Your task to perform on an android device: open app "Google Pay: Save, Pay, Manage" Image 0: 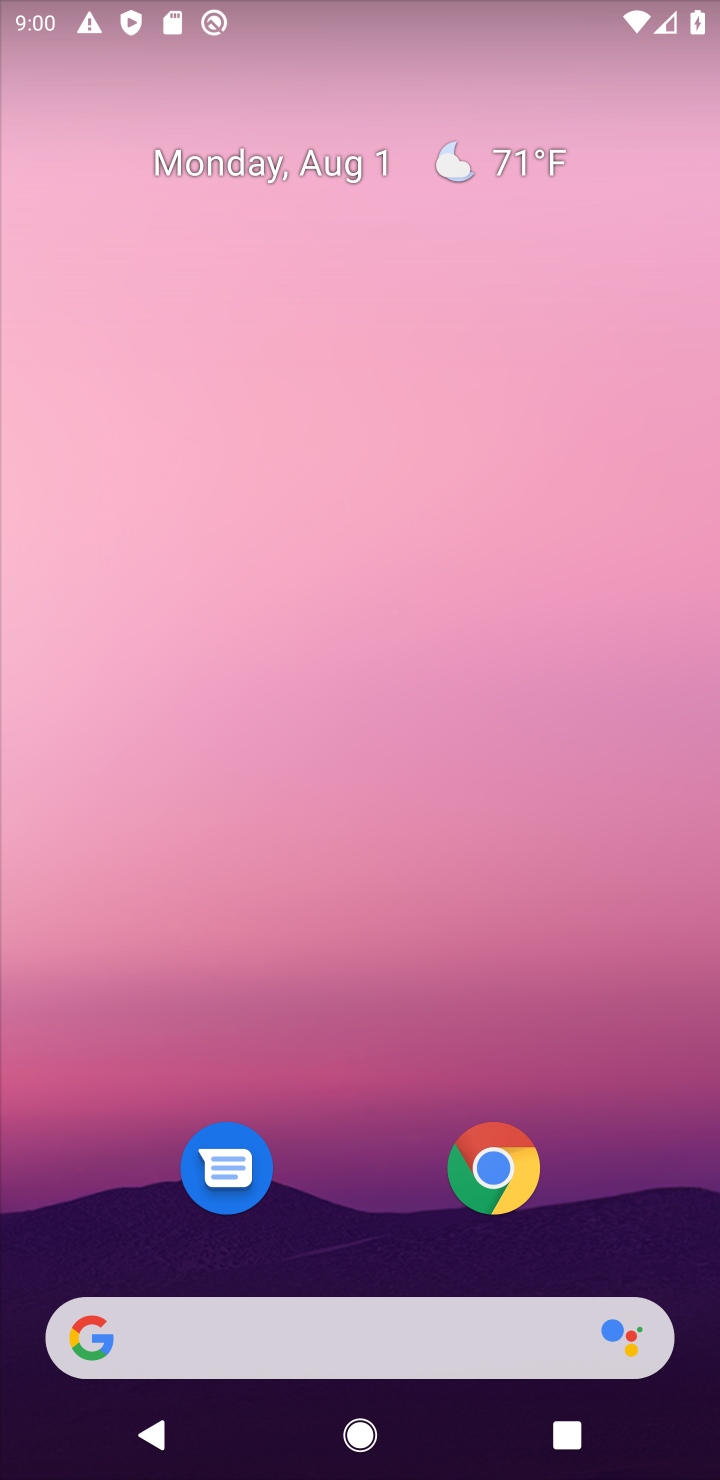
Step 0: drag from (401, 1243) to (523, 1195)
Your task to perform on an android device: open app "Google Pay: Save, Pay, Manage" Image 1: 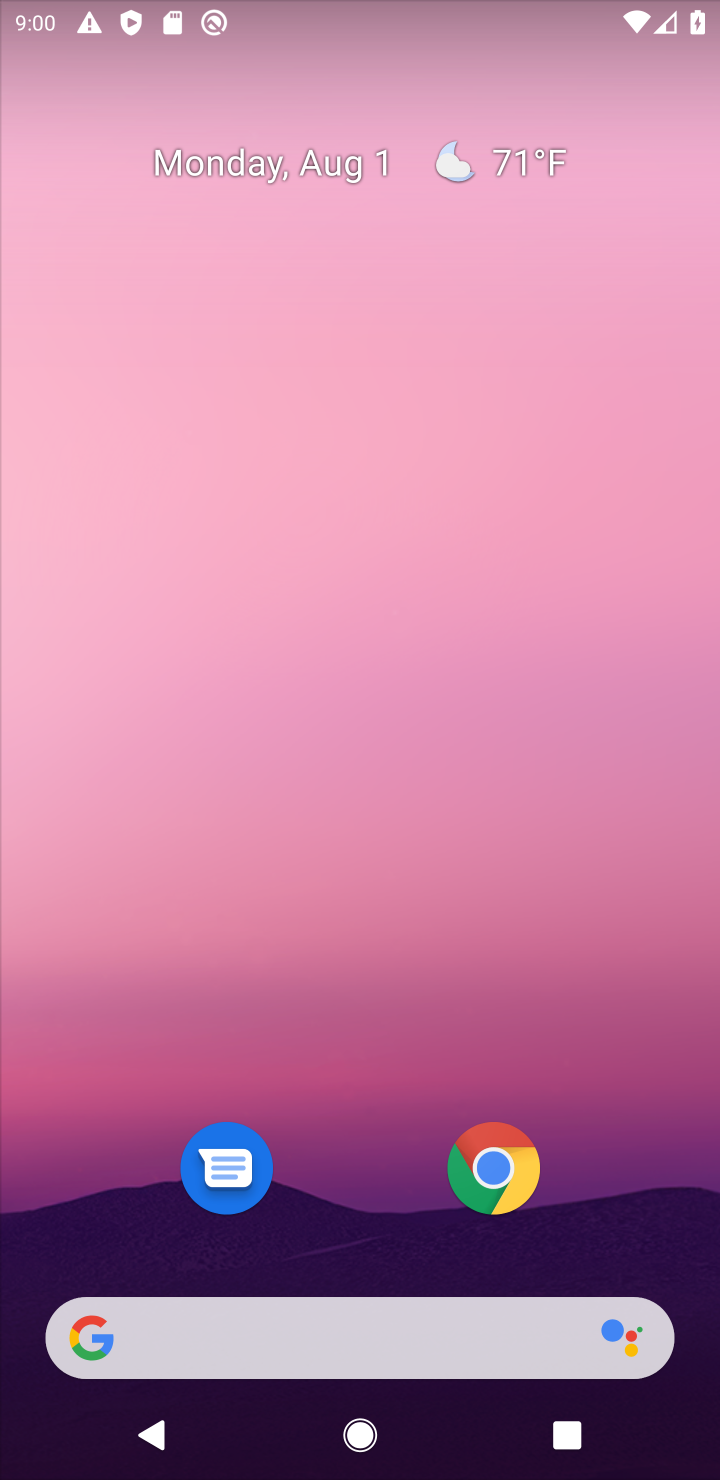
Step 1: drag from (460, 1234) to (633, 73)
Your task to perform on an android device: open app "Google Pay: Save, Pay, Manage" Image 2: 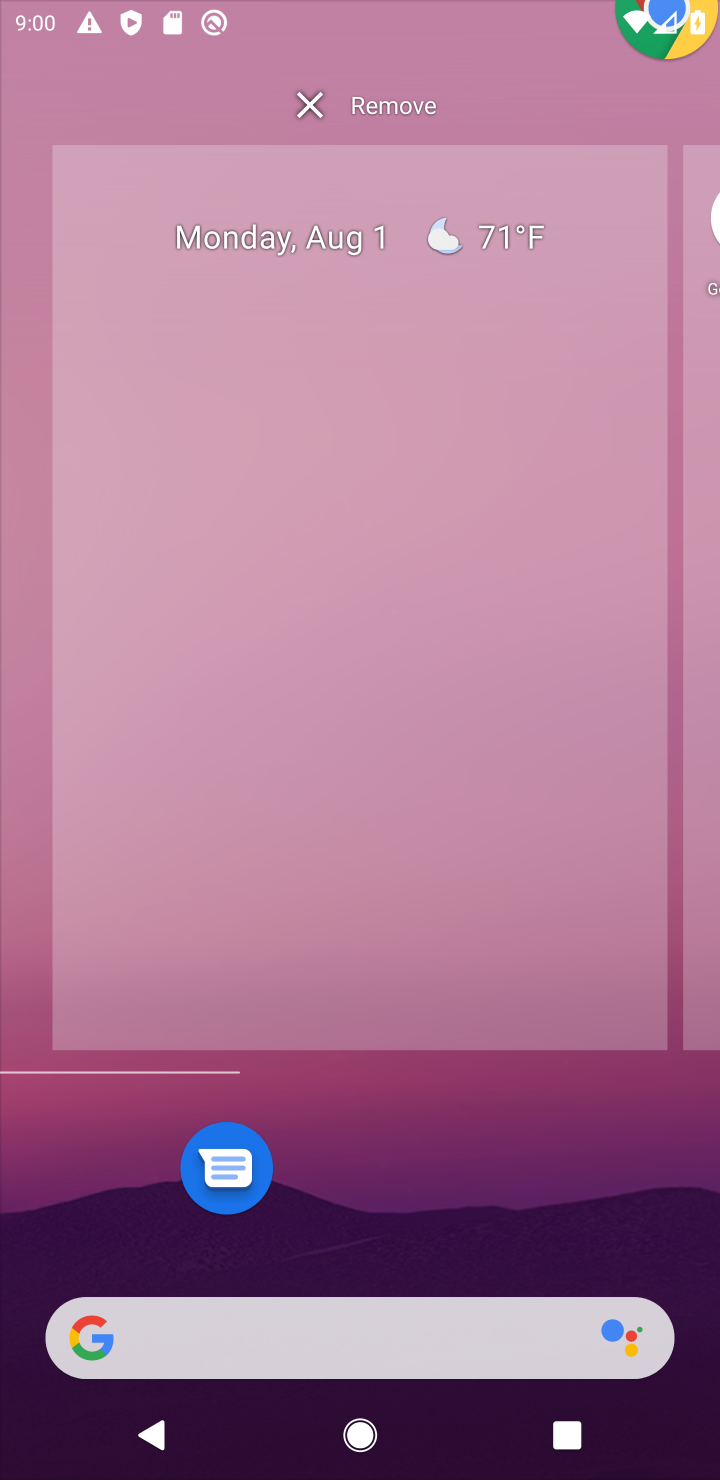
Step 2: click (329, 674)
Your task to perform on an android device: open app "Google Pay: Save, Pay, Manage" Image 3: 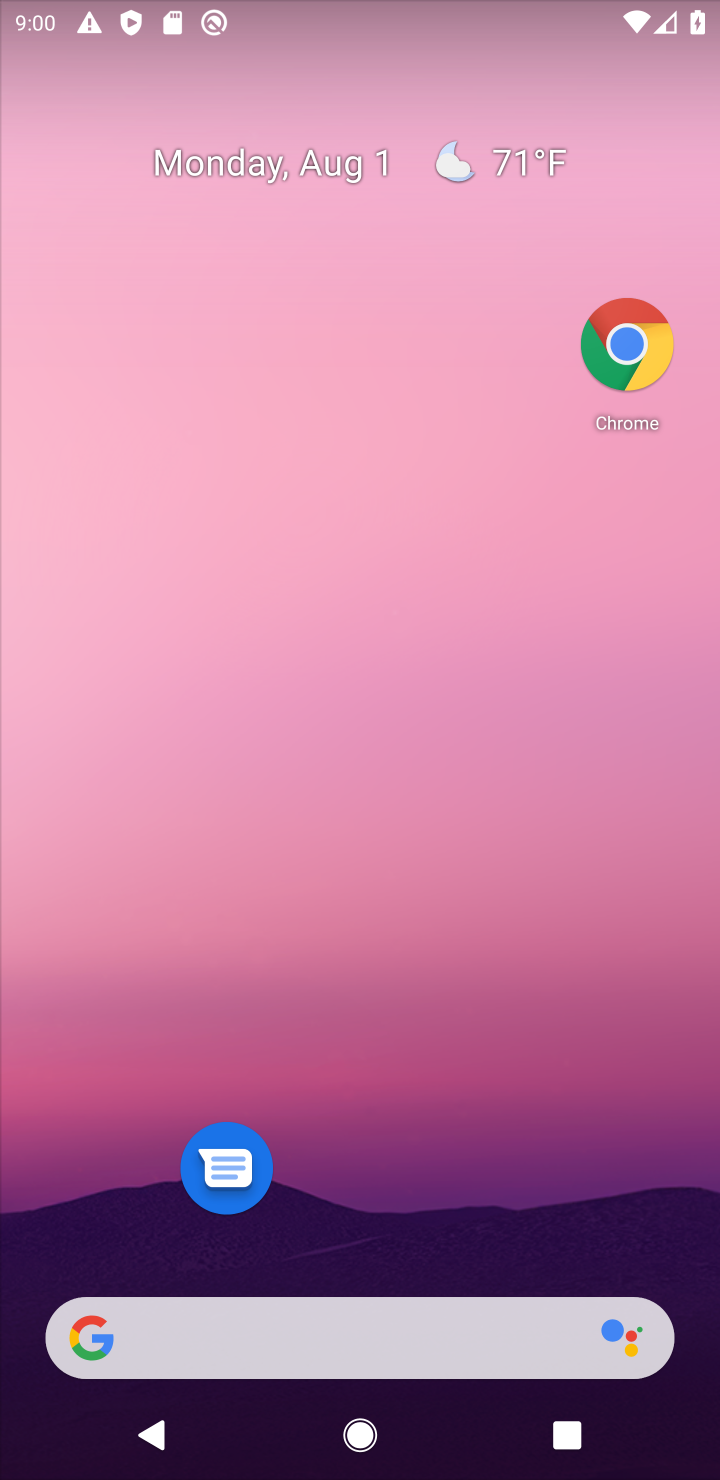
Step 3: drag from (420, 1236) to (566, 600)
Your task to perform on an android device: open app "Google Pay: Save, Pay, Manage" Image 4: 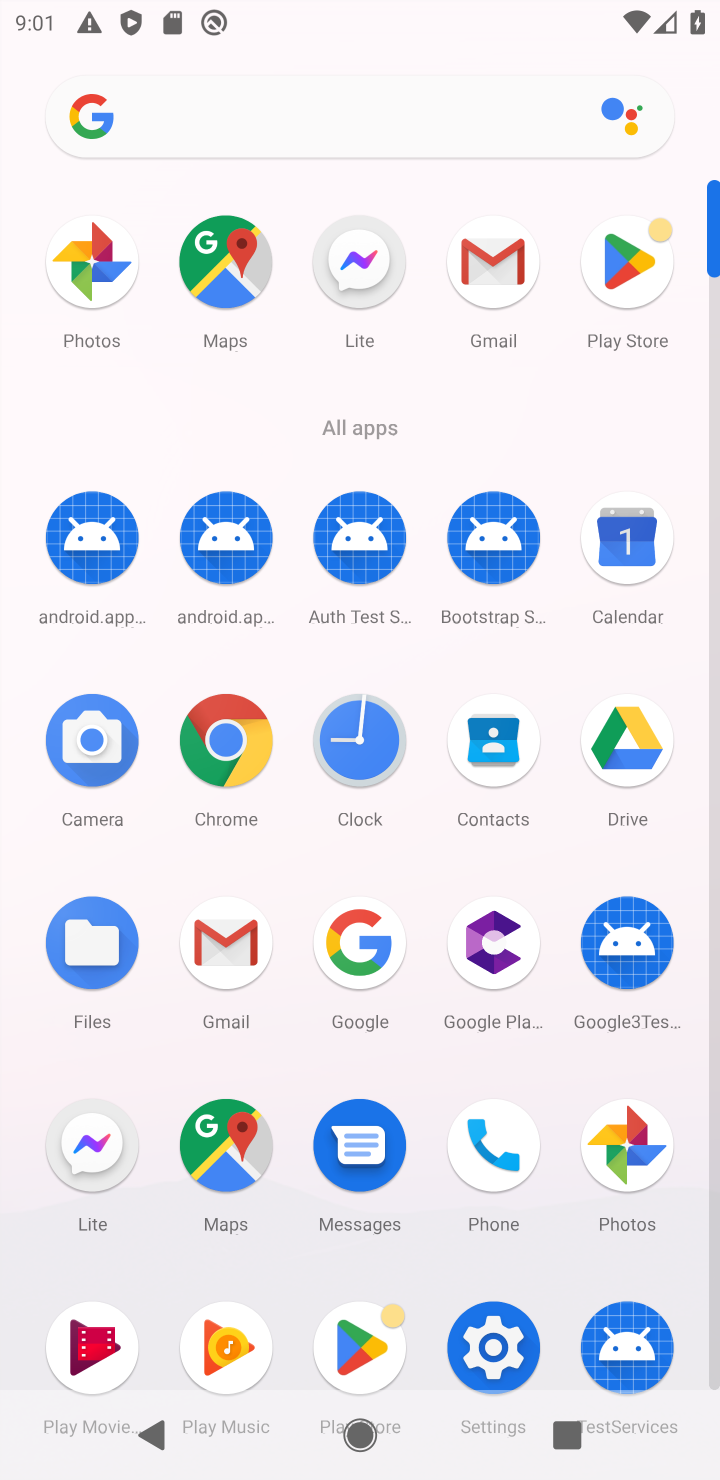
Step 4: click (382, 1346)
Your task to perform on an android device: open app "Google Pay: Save, Pay, Manage" Image 5: 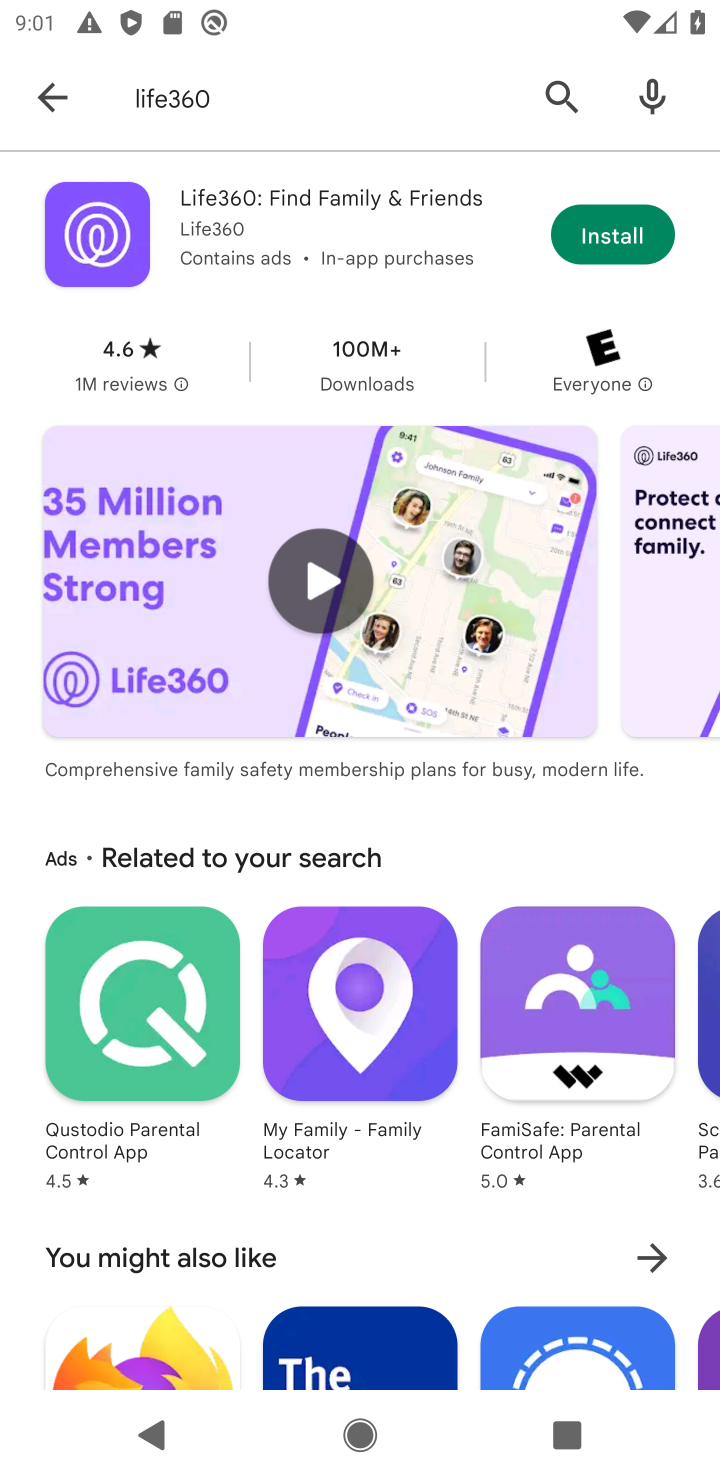
Step 5: click (34, 94)
Your task to perform on an android device: open app "Google Pay: Save, Pay, Manage" Image 6: 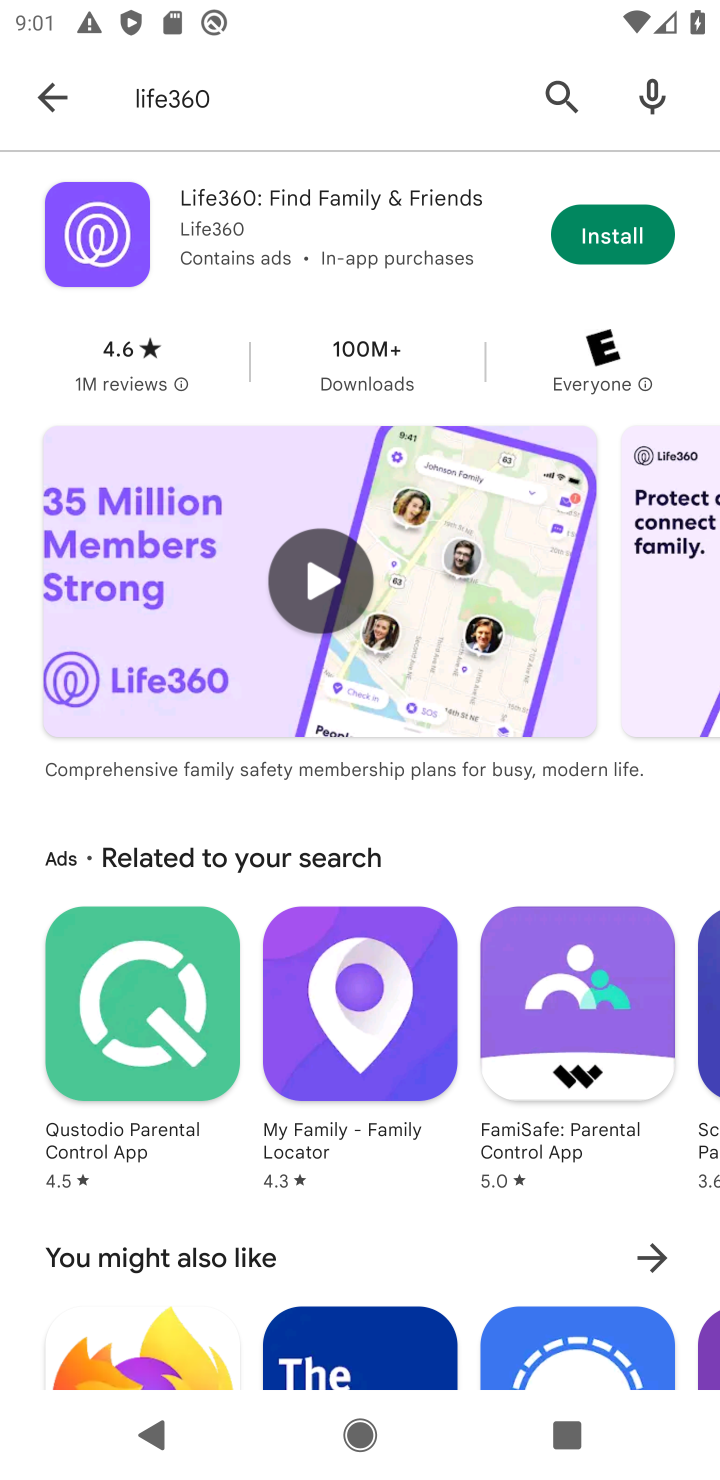
Step 6: click (42, 117)
Your task to perform on an android device: open app "Google Pay: Save, Pay, Manage" Image 7: 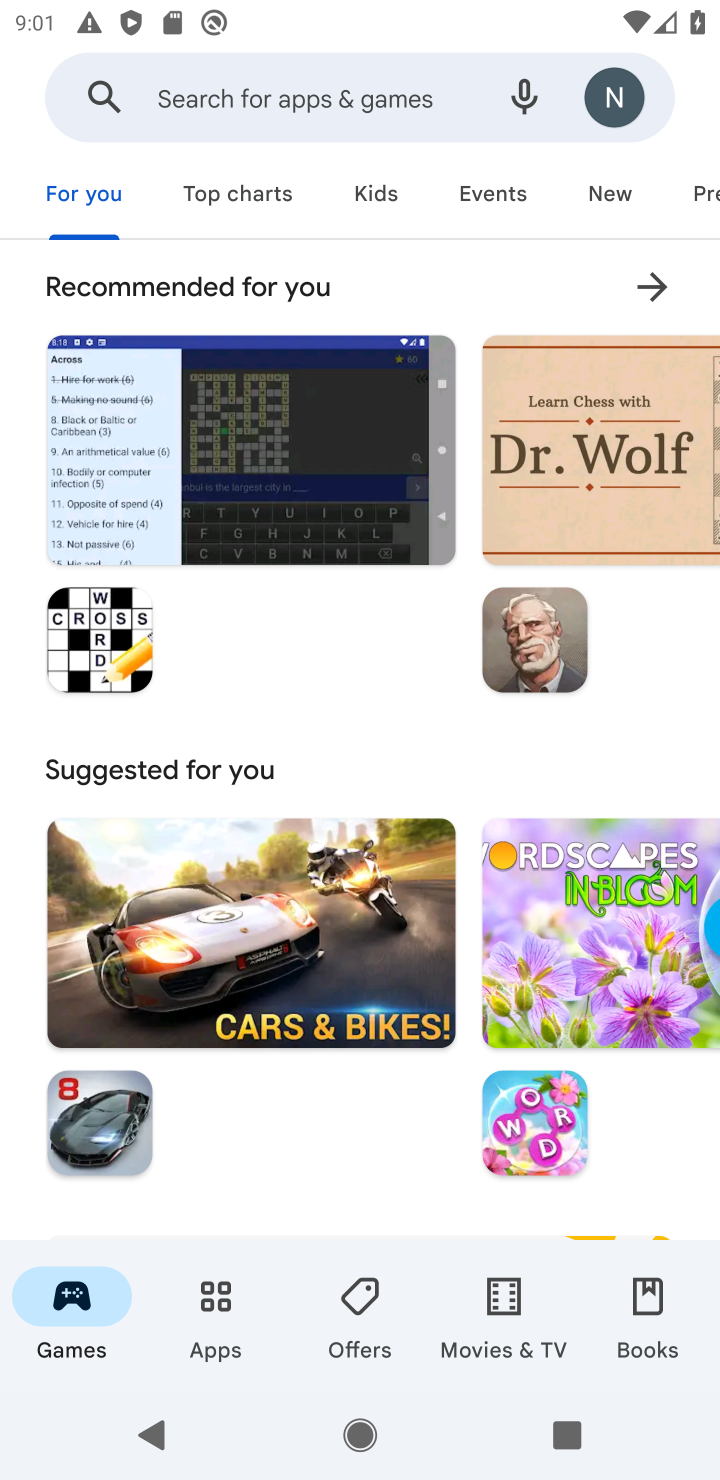
Step 7: click (284, 116)
Your task to perform on an android device: open app "Google Pay: Save, Pay, Manage" Image 8: 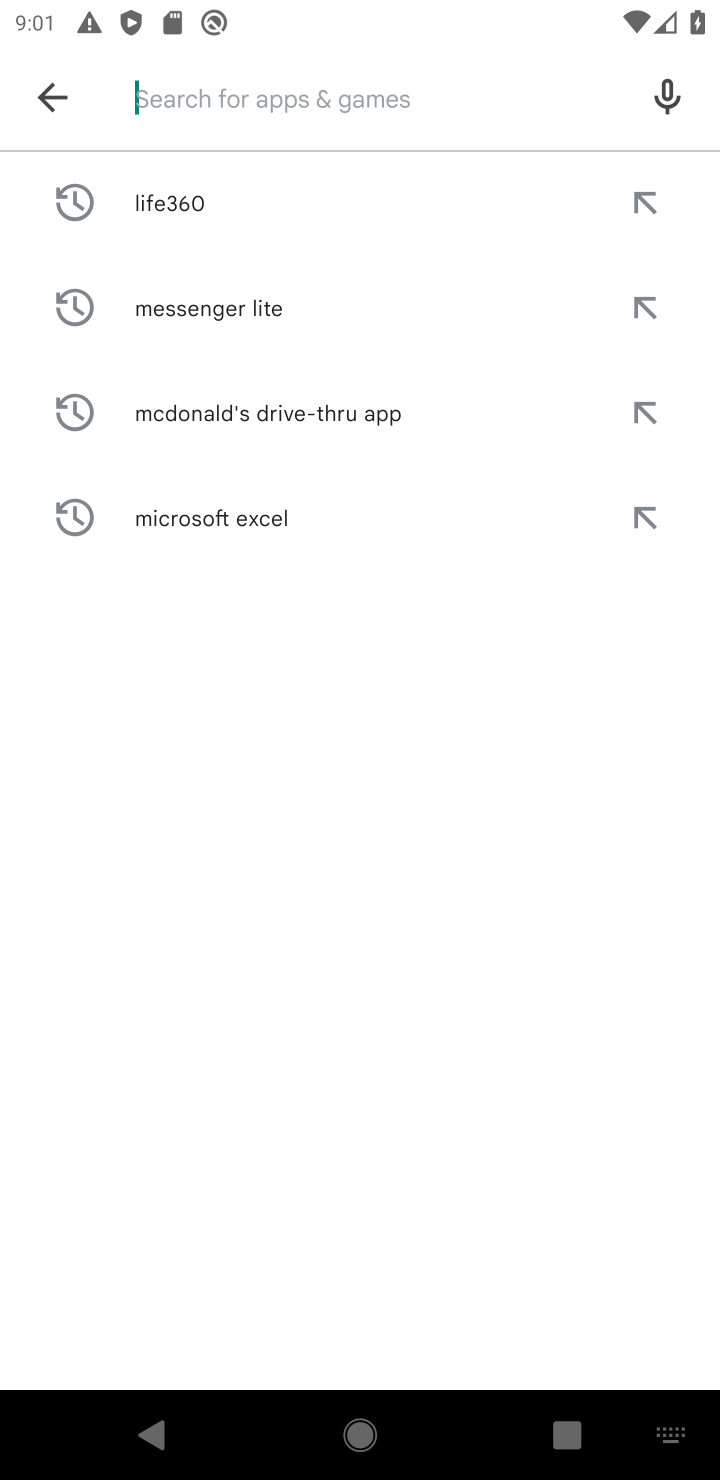
Step 8: type "Google Pay: Save, Pay, Manage"
Your task to perform on an android device: open app "Google Pay: Save, Pay, Manage" Image 9: 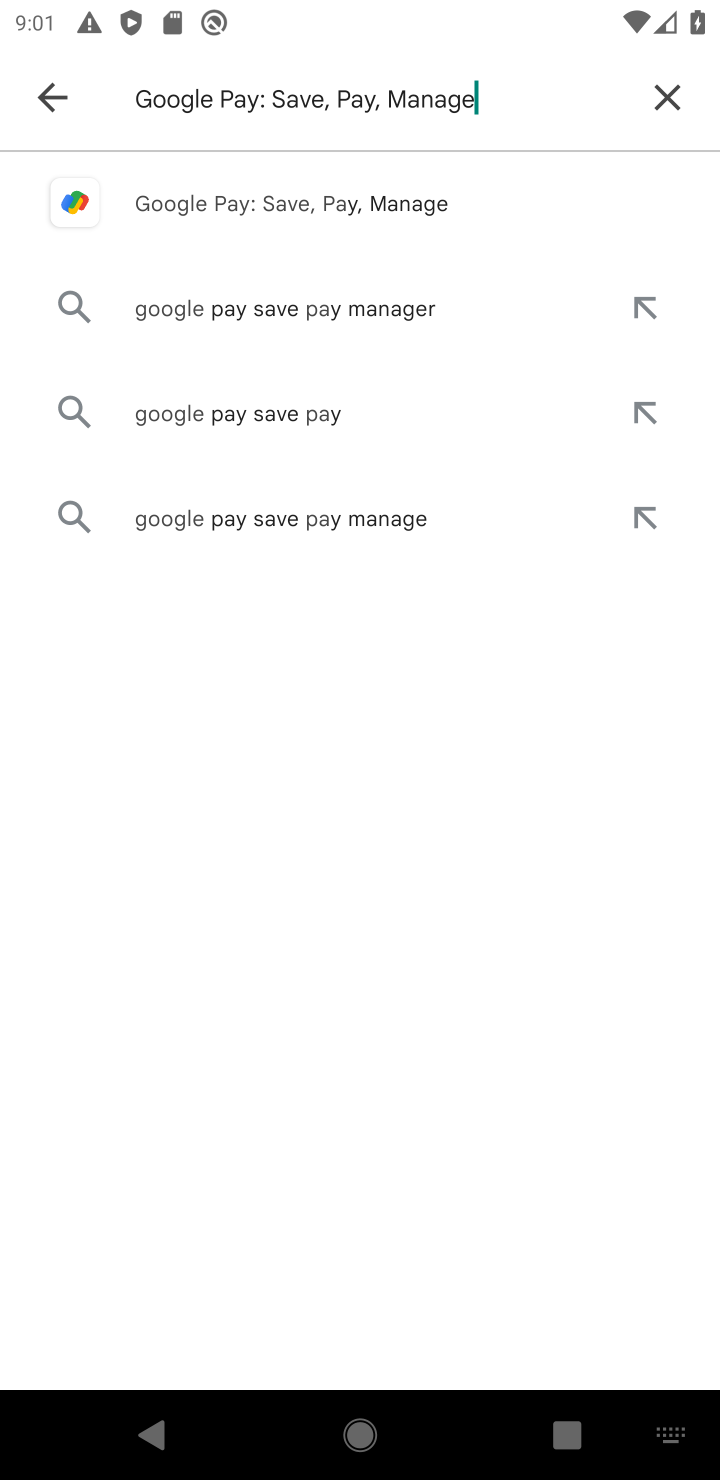
Step 9: type ""
Your task to perform on an android device: open app "Google Pay: Save, Pay, Manage" Image 10: 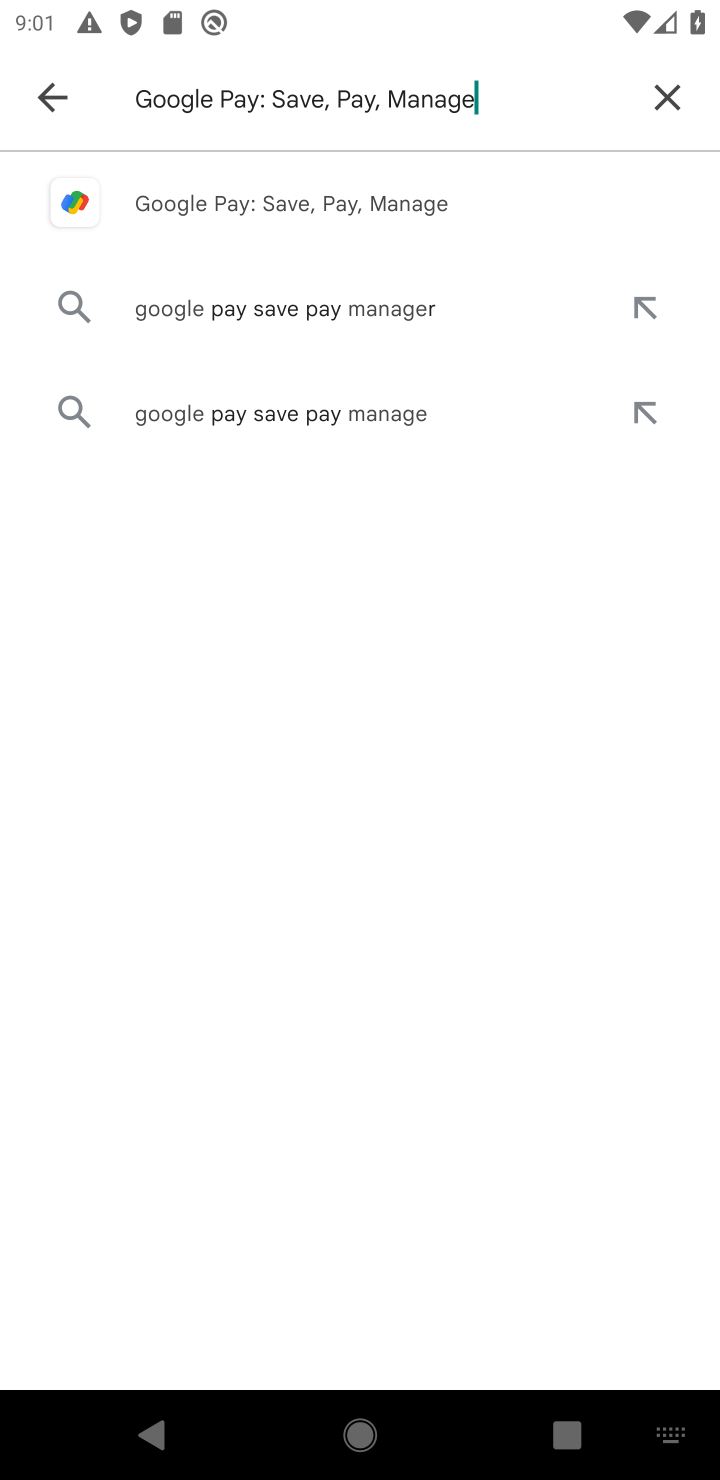
Step 10: click (346, 180)
Your task to perform on an android device: open app "Google Pay: Save, Pay, Manage" Image 11: 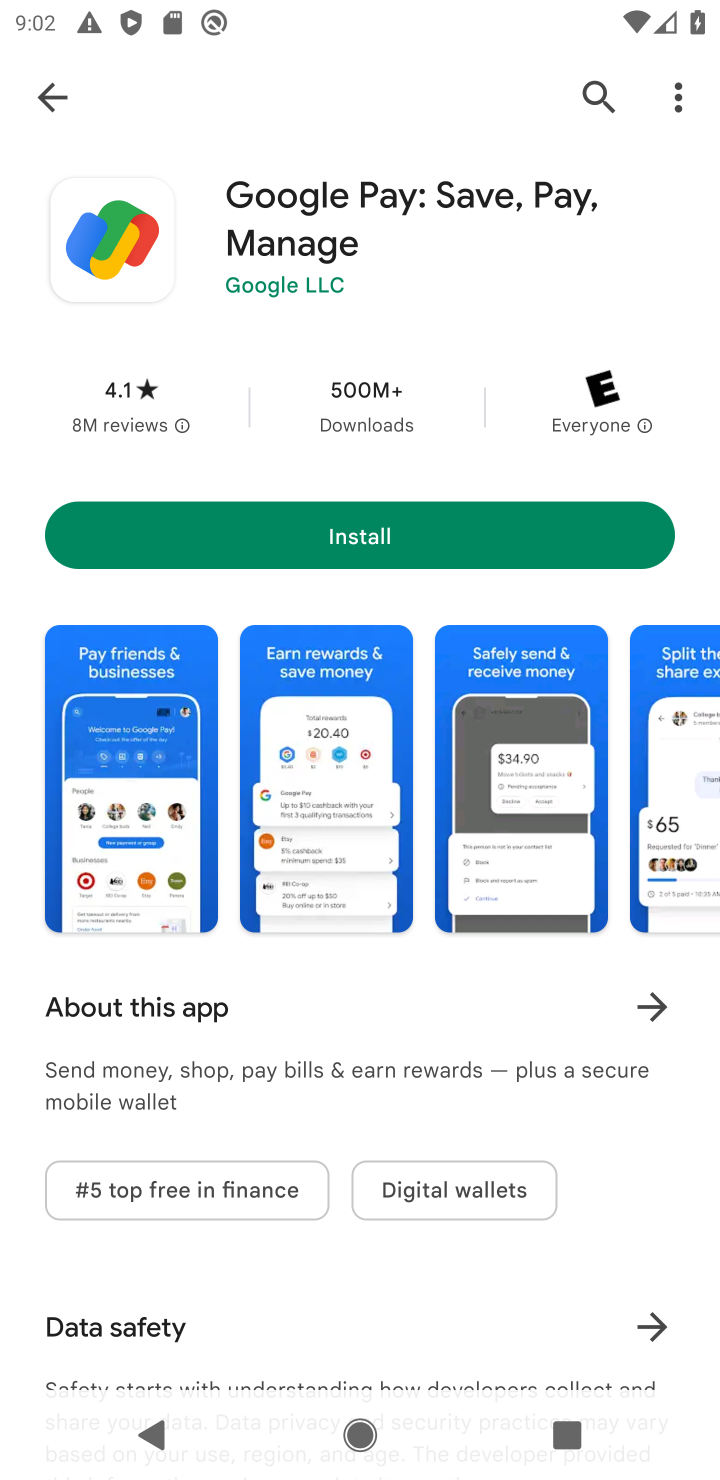
Step 11: task complete